Your task to perform on an android device: Check the weather Image 0: 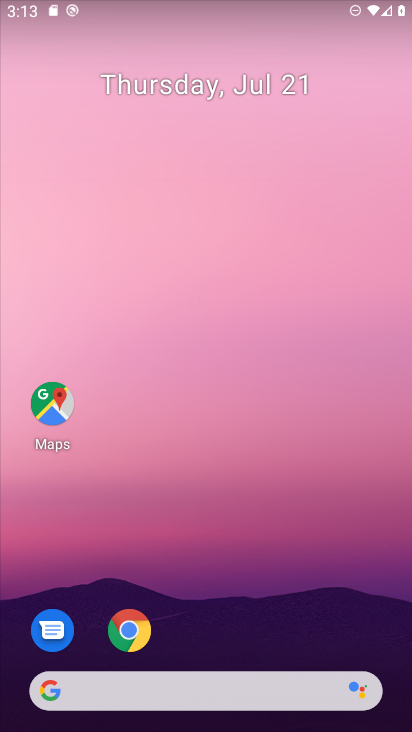
Step 0: click (139, 680)
Your task to perform on an android device: Check the weather Image 1: 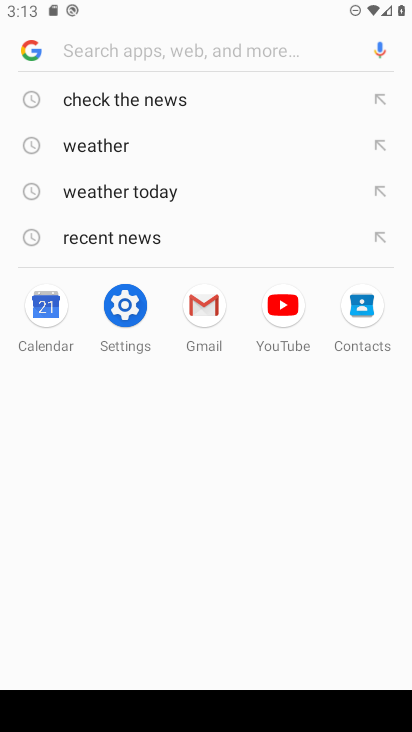
Step 1: click (120, 143)
Your task to perform on an android device: Check the weather Image 2: 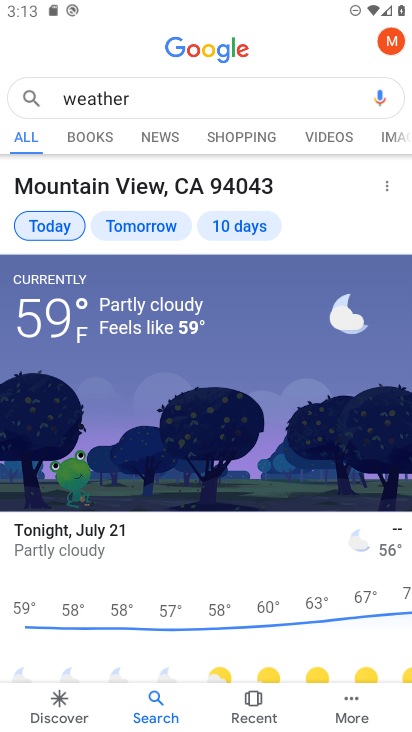
Step 2: task complete